Your task to perform on an android device: Open accessibility settings Image 0: 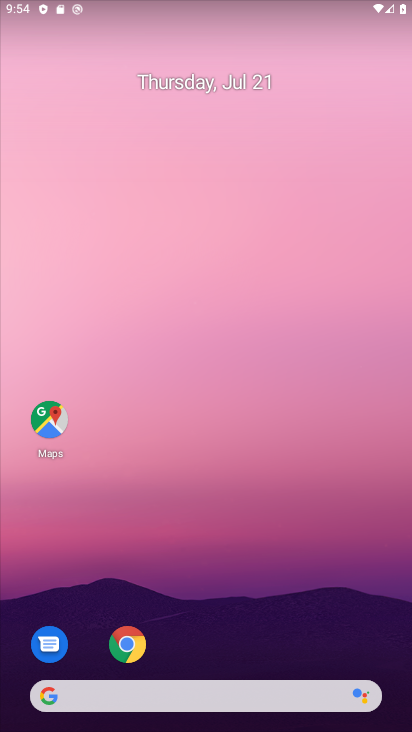
Step 0: drag from (227, 633) to (201, 214)
Your task to perform on an android device: Open accessibility settings Image 1: 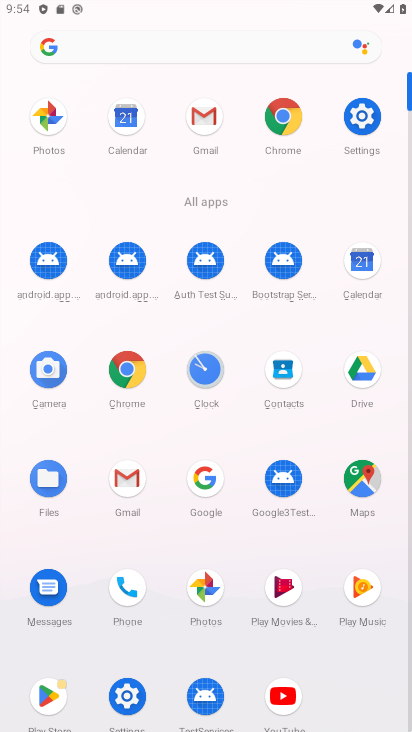
Step 1: click (122, 690)
Your task to perform on an android device: Open accessibility settings Image 2: 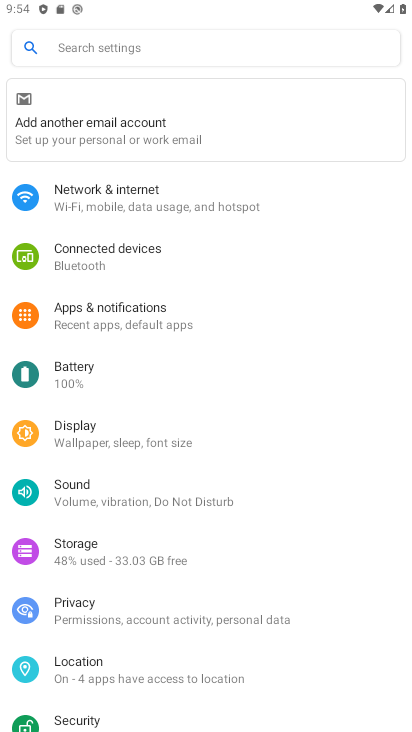
Step 2: drag from (125, 642) to (122, 308)
Your task to perform on an android device: Open accessibility settings Image 3: 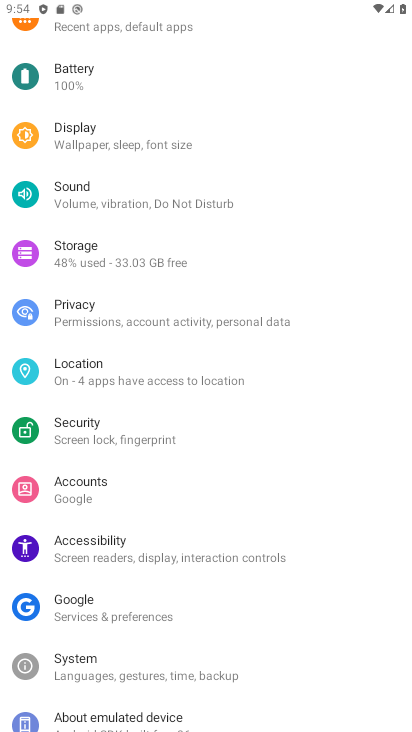
Step 3: click (104, 547)
Your task to perform on an android device: Open accessibility settings Image 4: 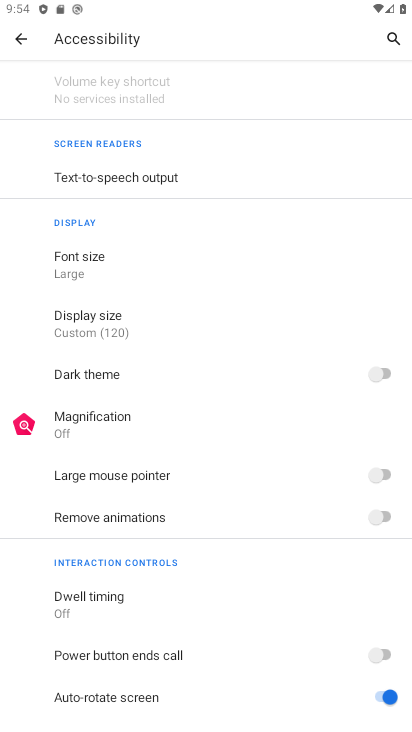
Step 4: task complete